Your task to perform on an android device: Go to notification settings Image 0: 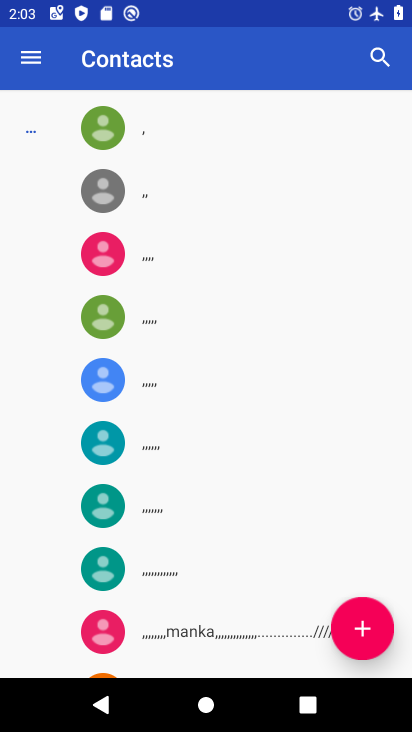
Step 0: press home button
Your task to perform on an android device: Go to notification settings Image 1: 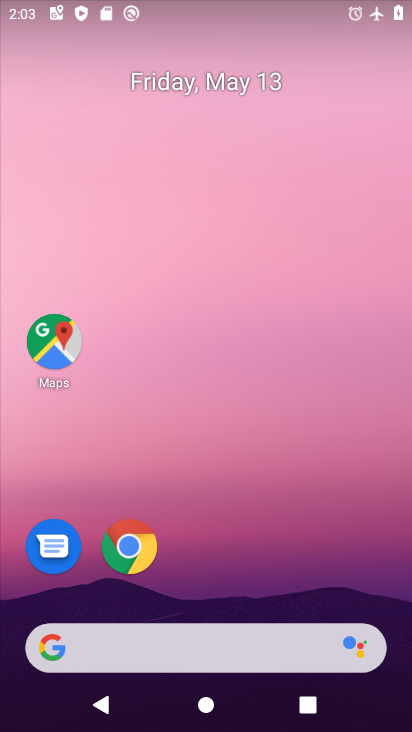
Step 1: drag from (310, 486) to (248, 64)
Your task to perform on an android device: Go to notification settings Image 2: 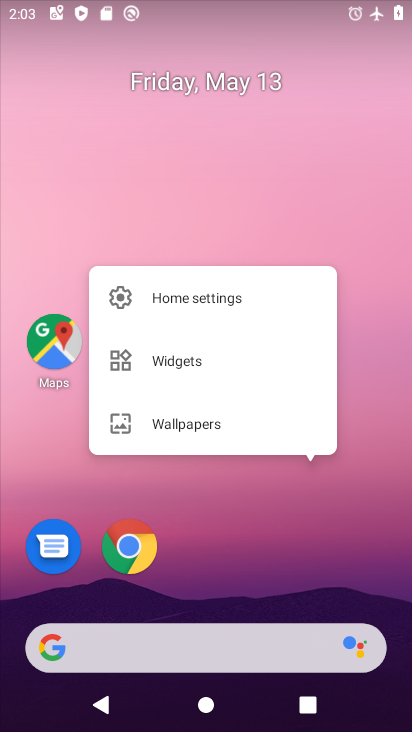
Step 2: click (326, 189)
Your task to perform on an android device: Go to notification settings Image 3: 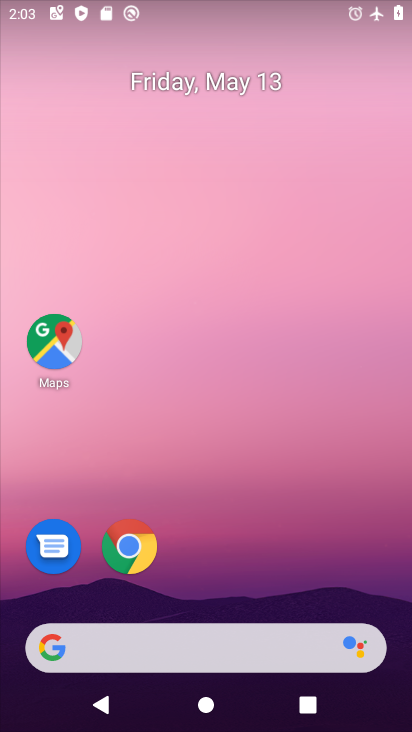
Step 3: drag from (263, 606) to (300, 214)
Your task to perform on an android device: Go to notification settings Image 4: 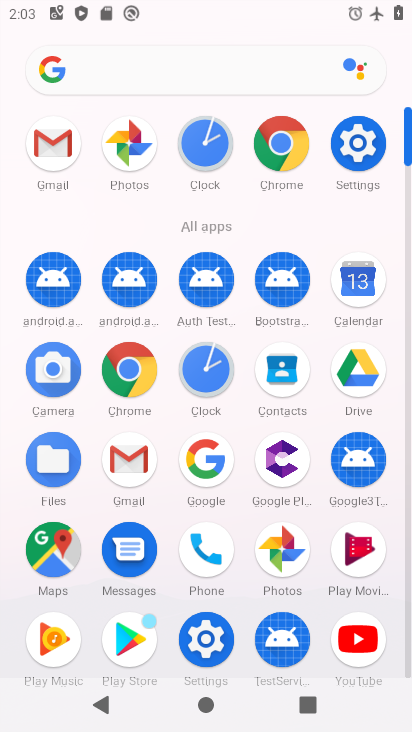
Step 4: click (210, 643)
Your task to perform on an android device: Go to notification settings Image 5: 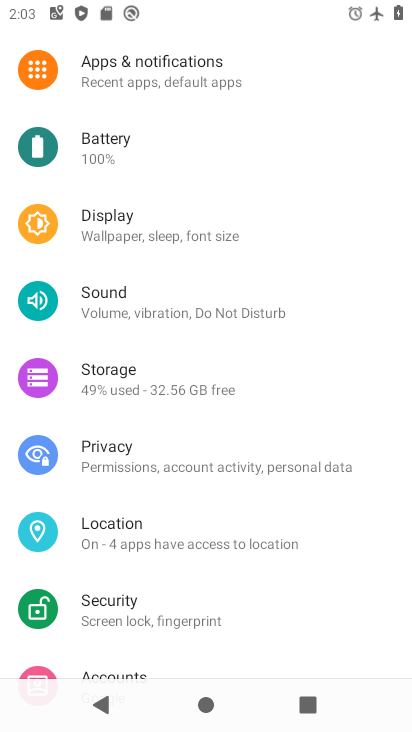
Step 5: click (192, 71)
Your task to perform on an android device: Go to notification settings Image 6: 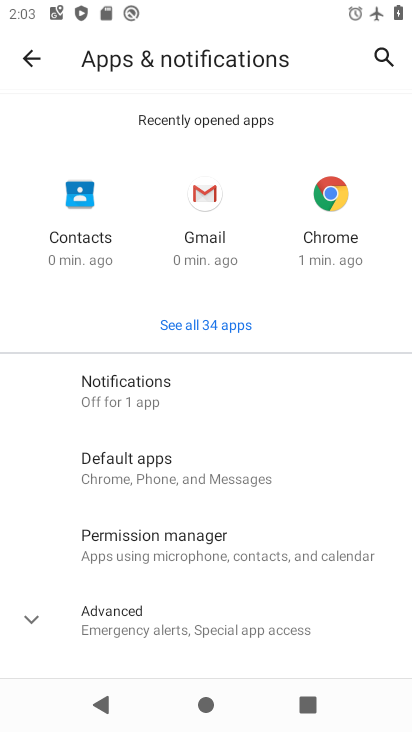
Step 6: click (147, 386)
Your task to perform on an android device: Go to notification settings Image 7: 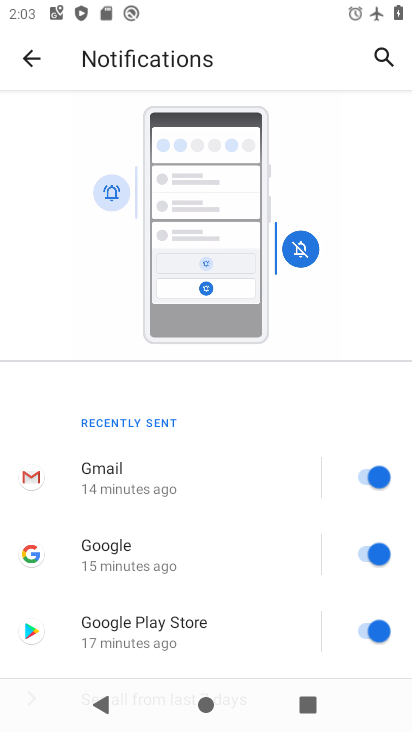
Step 7: task complete